Your task to perform on an android device: Open the phone app and click the voicemail tab. Image 0: 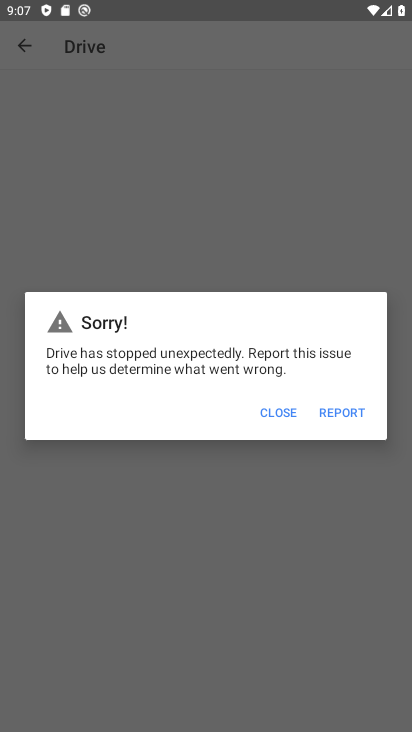
Step 0: press home button
Your task to perform on an android device: Open the phone app and click the voicemail tab. Image 1: 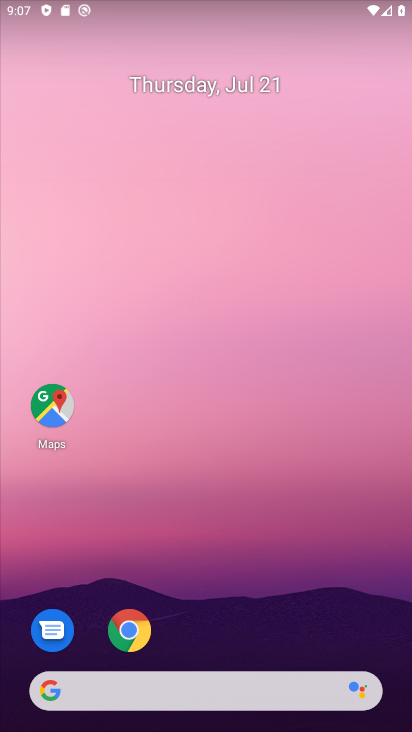
Step 1: drag from (252, 728) to (248, 114)
Your task to perform on an android device: Open the phone app and click the voicemail tab. Image 2: 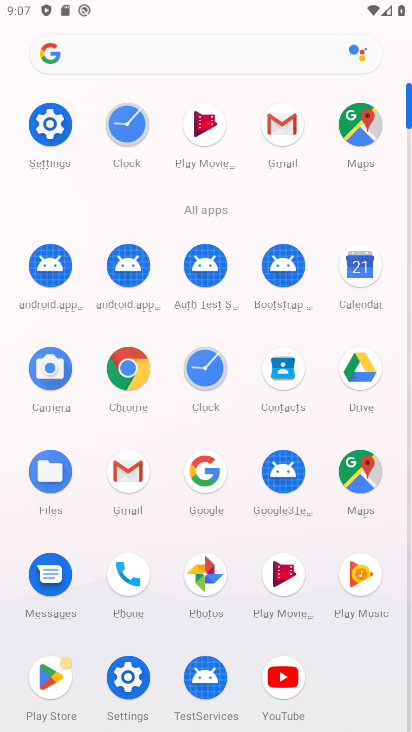
Step 2: click (132, 573)
Your task to perform on an android device: Open the phone app and click the voicemail tab. Image 3: 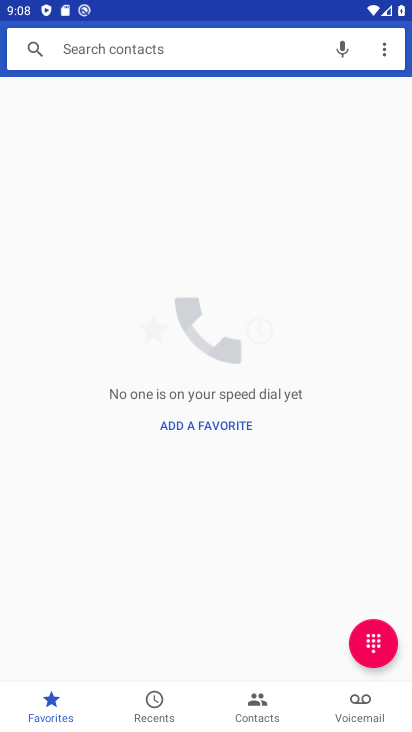
Step 3: click (369, 708)
Your task to perform on an android device: Open the phone app and click the voicemail tab. Image 4: 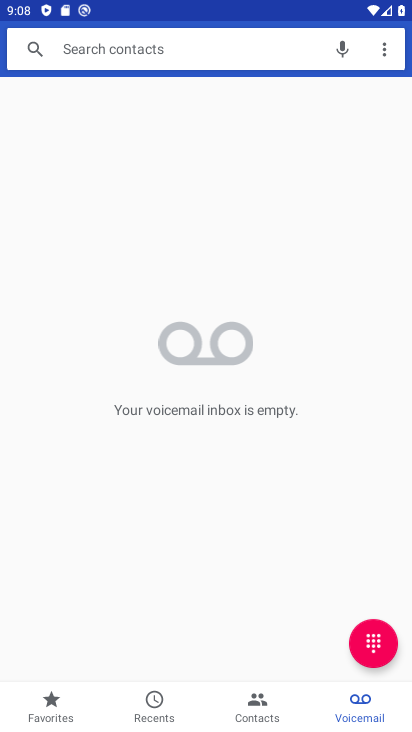
Step 4: task complete